Your task to perform on an android device: change timer sound Image 0: 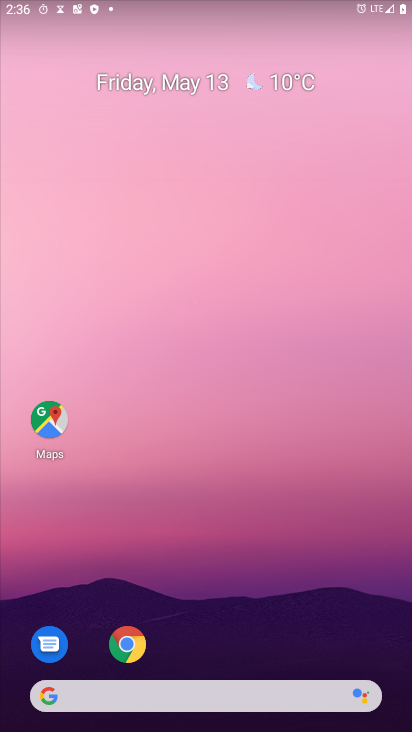
Step 0: drag from (212, 727) to (208, 225)
Your task to perform on an android device: change timer sound Image 1: 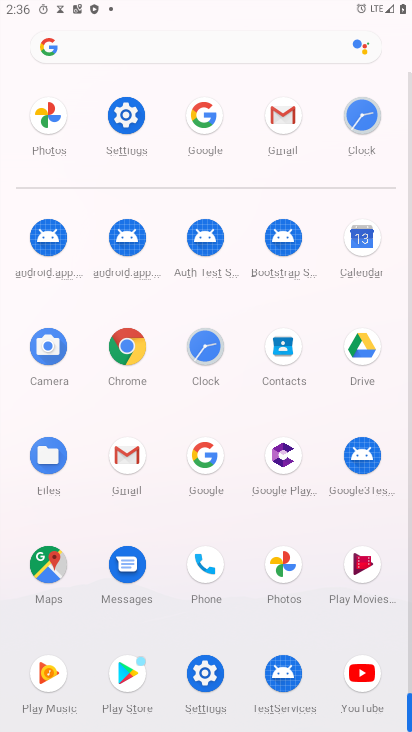
Step 1: click (210, 352)
Your task to perform on an android device: change timer sound Image 2: 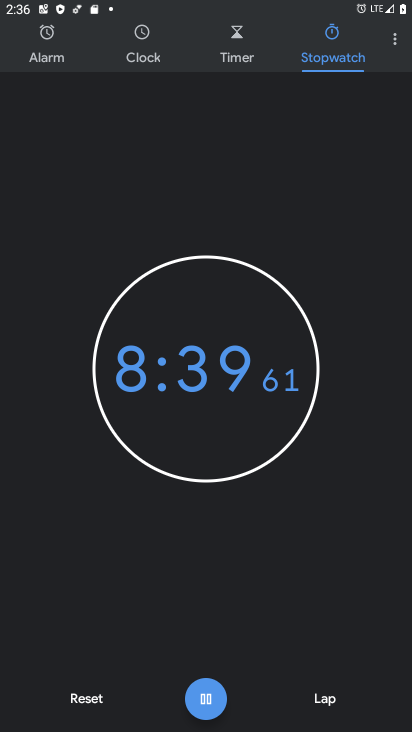
Step 2: click (397, 47)
Your task to perform on an android device: change timer sound Image 3: 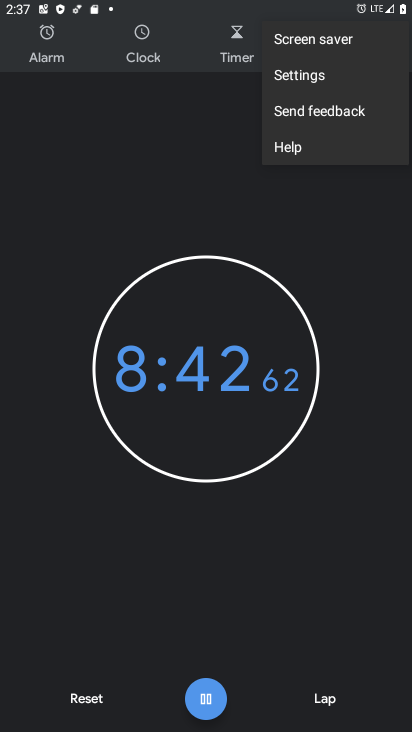
Step 3: click (306, 79)
Your task to perform on an android device: change timer sound Image 4: 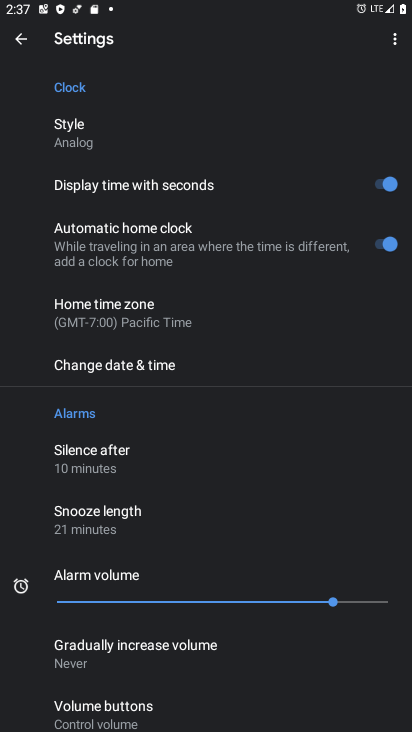
Step 4: drag from (208, 557) to (241, 247)
Your task to perform on an android device: change timer sound Image 5: 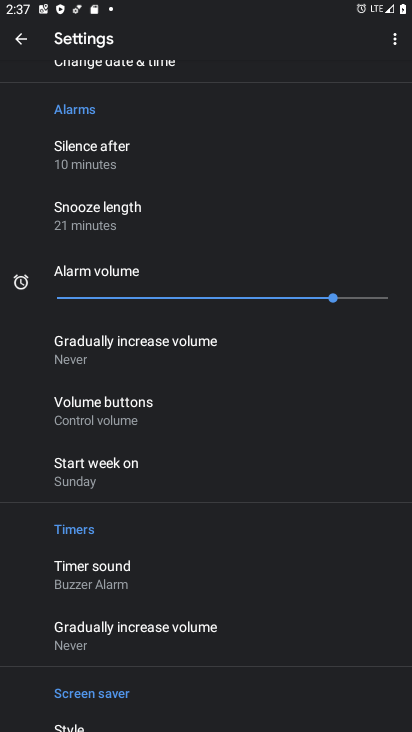
Step 5: click (93, 565)
Your task to perform on an android device: change timer sound Image 6: 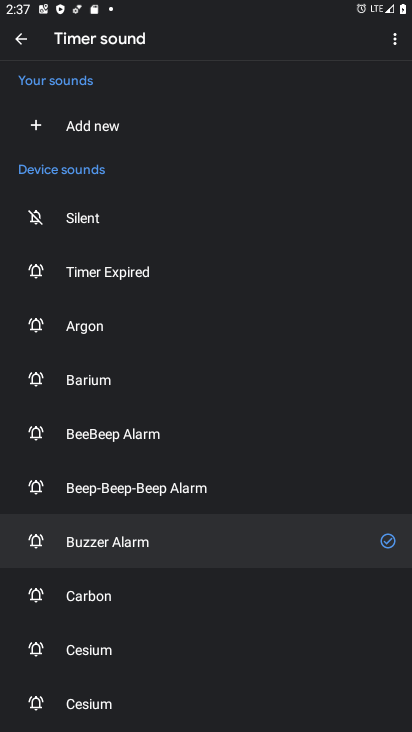
Step 6: click (100, 700)
Your task to perform on an android device: change timer sound Image 7: 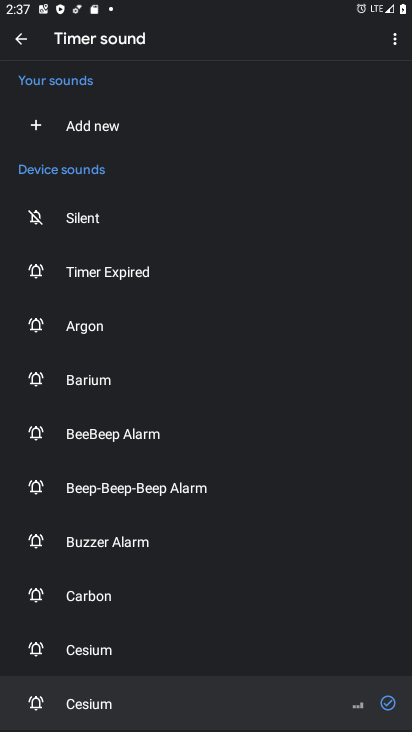
Step 7: task complete